Your task to perform on an android device: Do I have any events this weekend? Image 0: 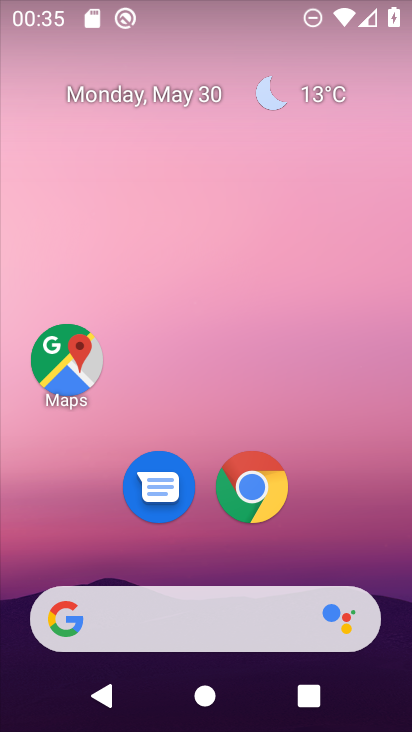
Step 0: drag from (347, 308) to (294, 89)
Your task to perform on an android device: Do I have any events this weekend? Image 1: 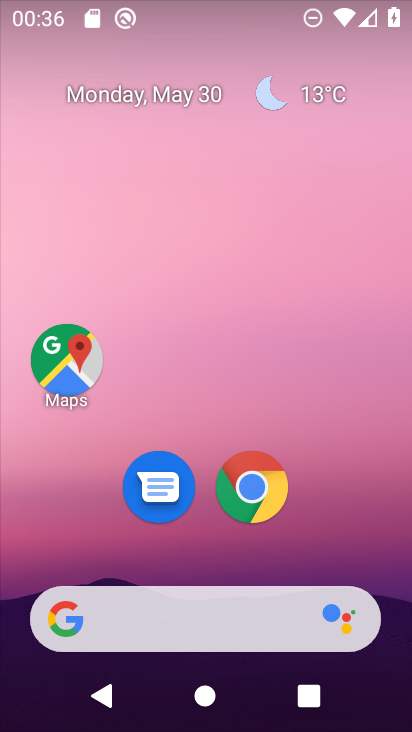
Step 1: drag from (393, 468) to (344, 136)
Your task to perform on an android device: Do I have any events this weekend? Image 2: 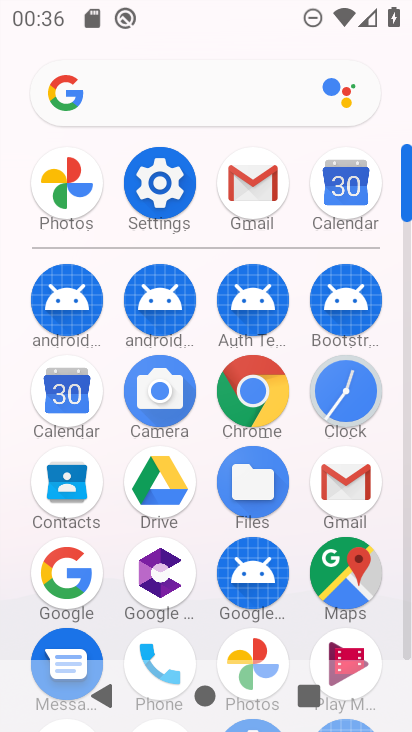
Step 2: click (42, 401)
Your task to perform on an android device: Do I have any events this weekend? Image 3: 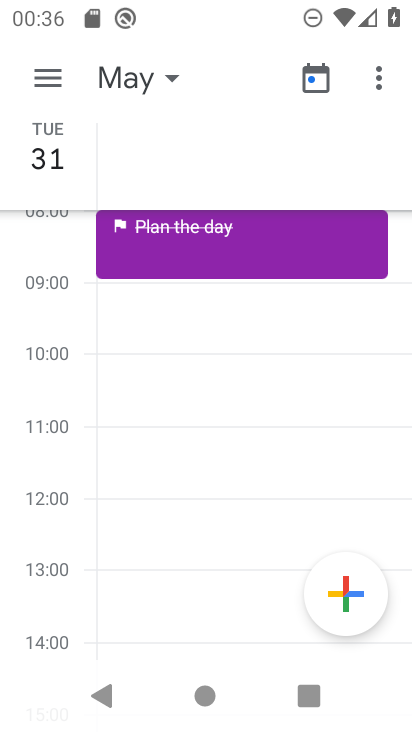
Step 3: click (170, 70)
Your task to perform on an android device: Do I have any events this weekend? Image 4: 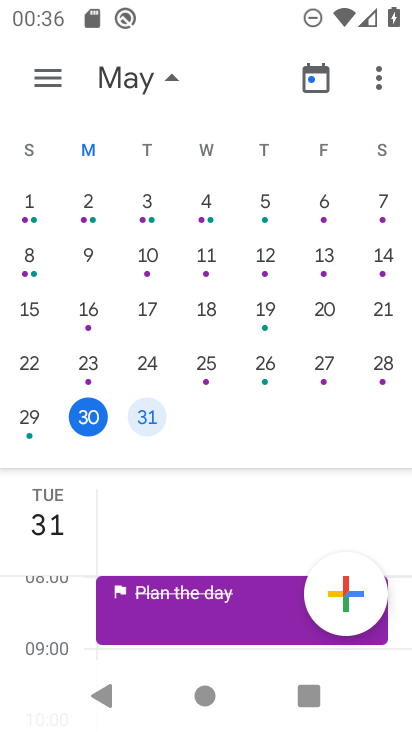
Step 4: click (144, 415)
Your task to perform on an android device: Do I have any events this weekend? Image 5: 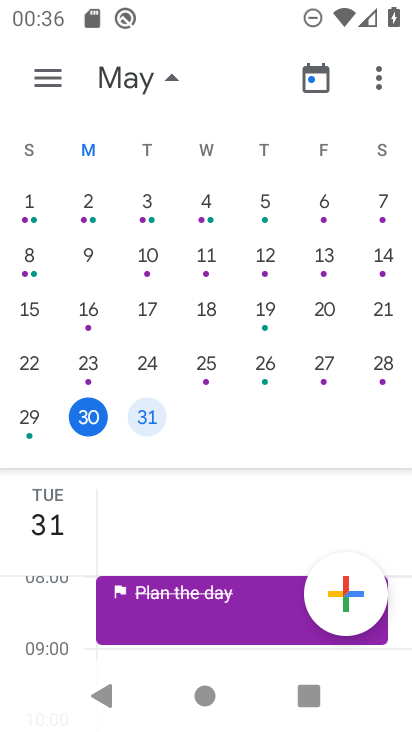
Step 5: click (38, 74)
Your task to perform on an android device: Do I have any events this weekend? Image 6: 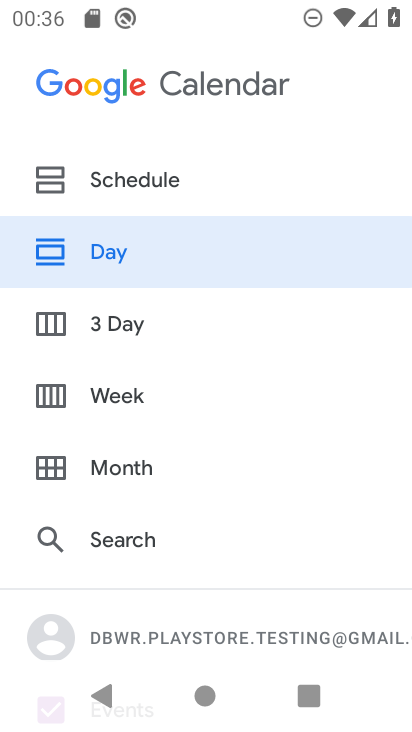
Step 6: click (118, 393)
Your task to perform on an android device: Do I have any events this weekend? Image 7: 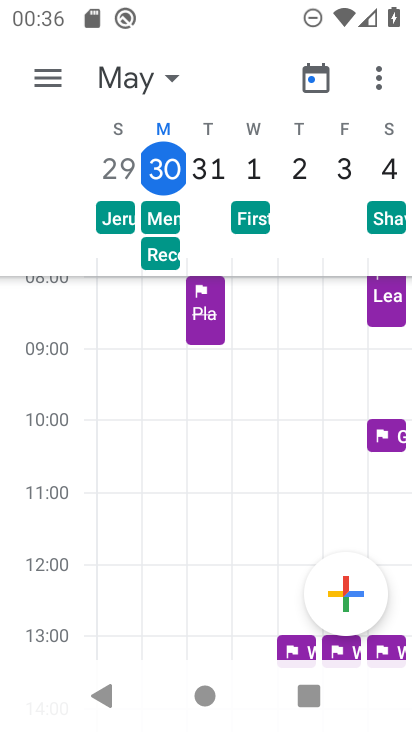
Step 7: click (49, 83)
Your task to perform on an android device: Do I have any events this weekend? Image 8: 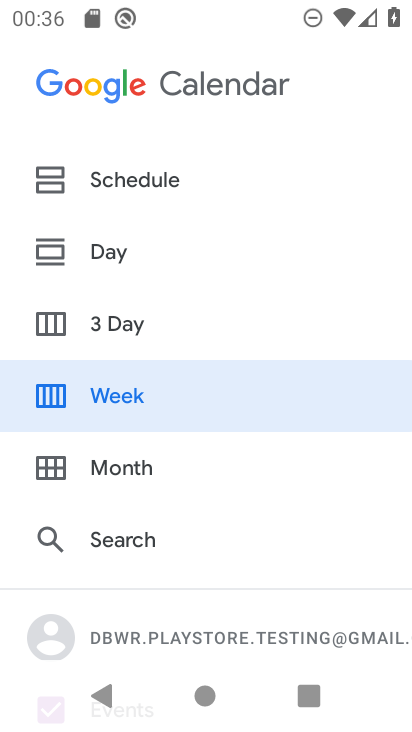
Step 8: drag from (191, 565) to (197, 158)
Your task to perform on an android device: Do I have any events this weekend? Image 9: 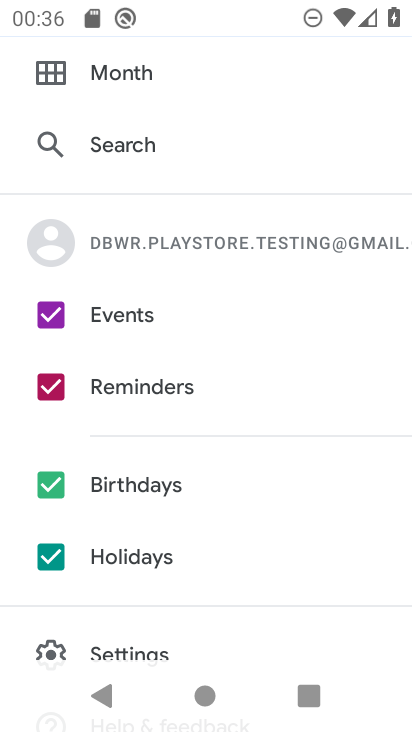
Step 9: click (52, 564)
Your task to perform on an android device: Do I have any events this weekend? Image 10: 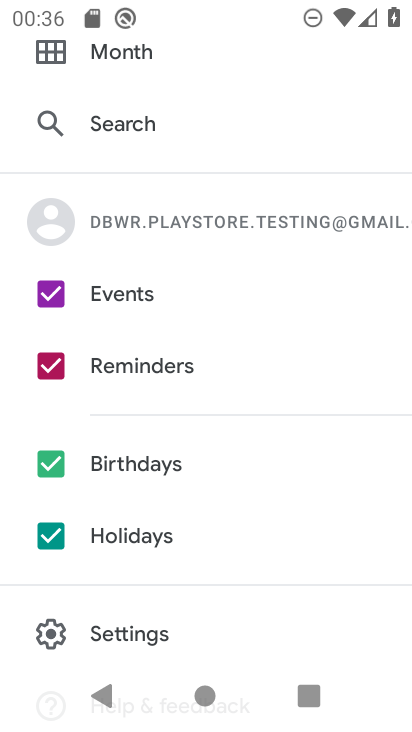
Step 10: click (47, 480)
Your task to perform on an android device: Do I have any events this weekend? Image 11: 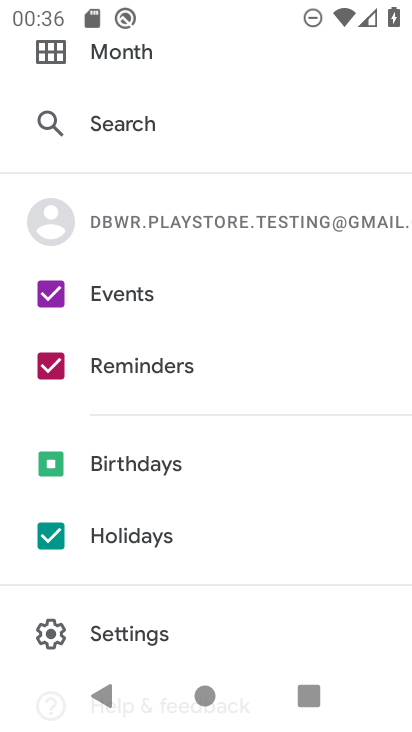
Step 11: click (43, 365)
Your task to perform on an android device: Do I have any events this weekend? Image 12: 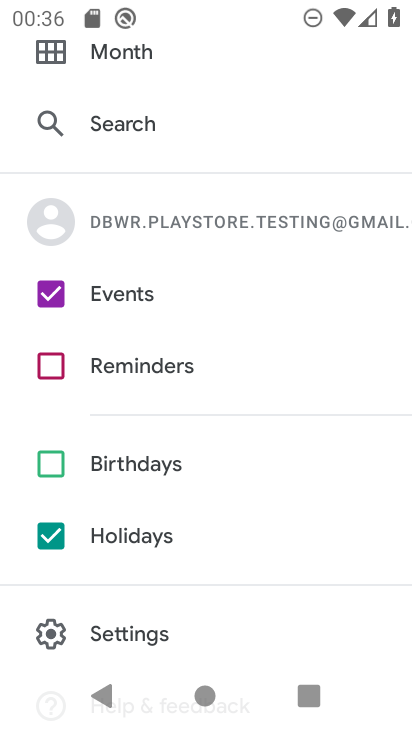
Step 12: click (44, 537)
Your task to perform on an android device: Do I have any events this weekend? Image 13: 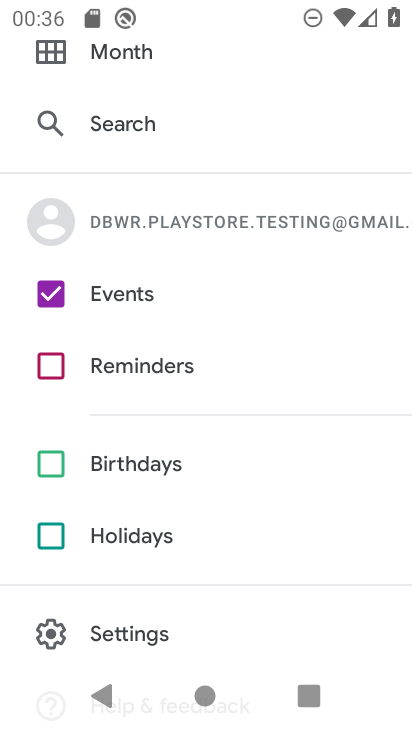
Step 13: drag from (243, 129) to (336, 549)
Your task to perform on an android device: Do I have any events this weekend? Image 14: 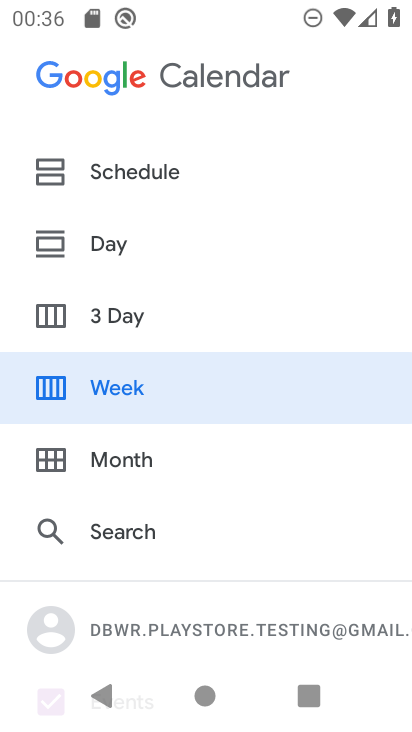
Step 14: click (113, 163)
Your task to perform on an android device: Do I have any events this weekend? Image 15: 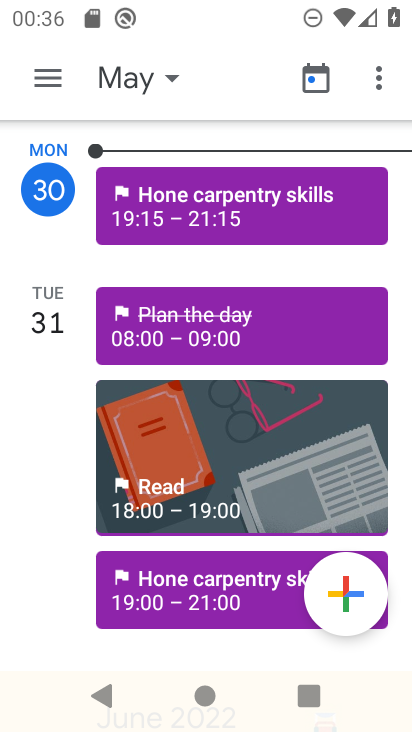
Step 15: task complete